Your task to perform on an android device: allow cookies in the chrome app Image 0: 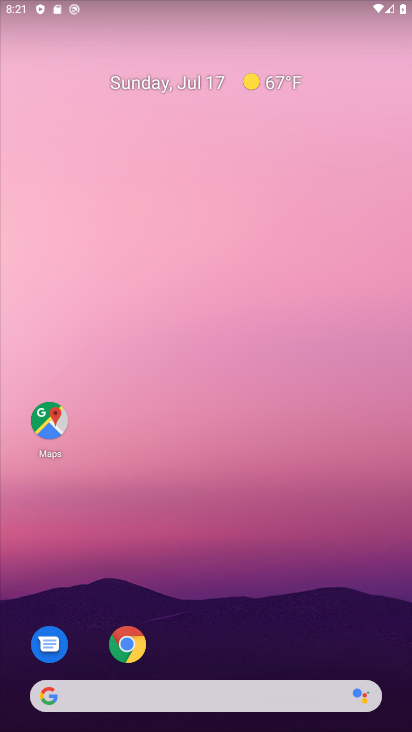
Step 0: drag from (223, 273) to (176, 135)
Your task to perform on an android device: allow cookies in the chrome app Image 1: 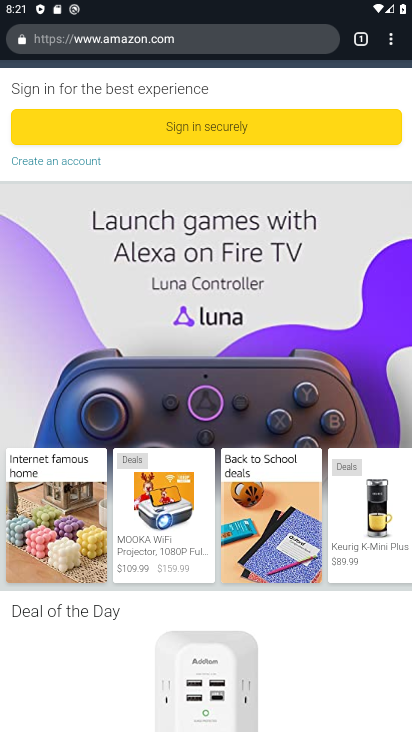
Step 1: click (394, 37)
Your task to perform on an android device: allow cookies in the chrome app Image 2: 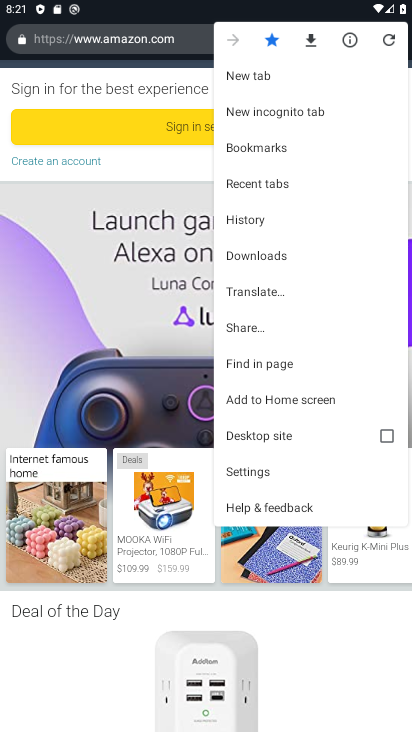
Step 2: click (257, 467)
Your task to perform on an android device: allow cookies in the chrome app Image 3: 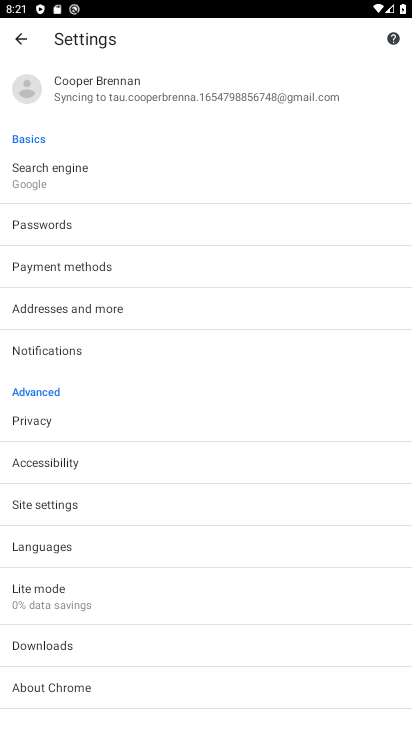
Step 3: click (43, 503)
Your task to perform on an android device: allow cookies in the chrome app Image 4: 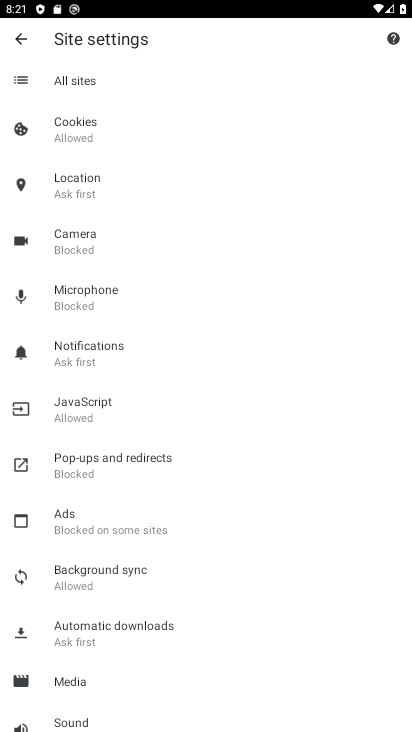
Step 4: task complete